Your task to perform on an android device: toggle pop-ups in chrome Image 0: 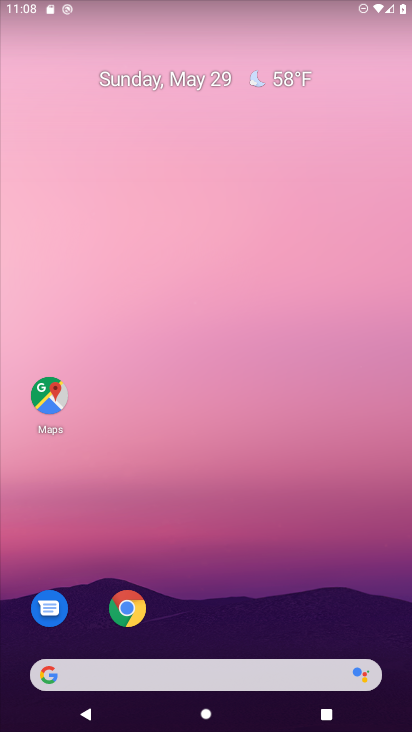
Step 0: click (126, 614)
Your task to perform on an android device: toggle pop-ups in chrome Image 1: 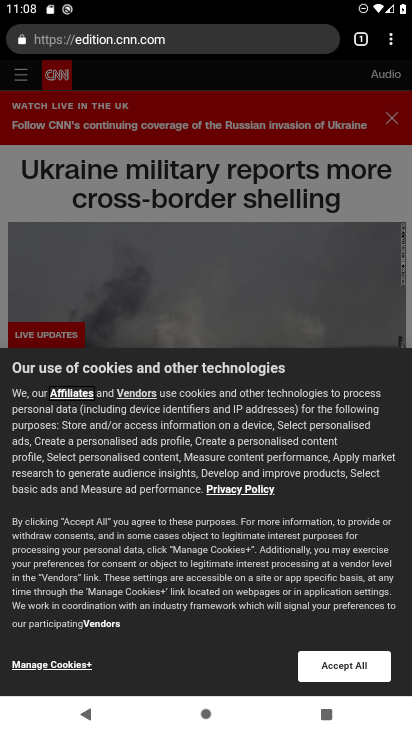
Step 1: click (396, 40)
Your task to perform on an android device: toggle pop-ups in chrome Image 2: 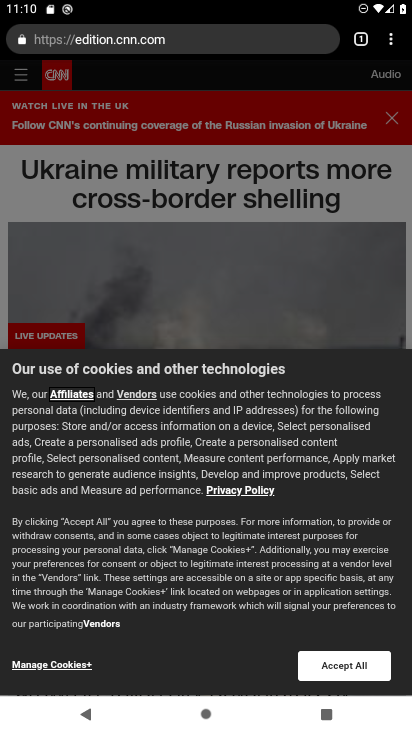
Step 2: click (395, 39)
Your task to perform on an android device: toggle pop-ups in chrome Image 3: 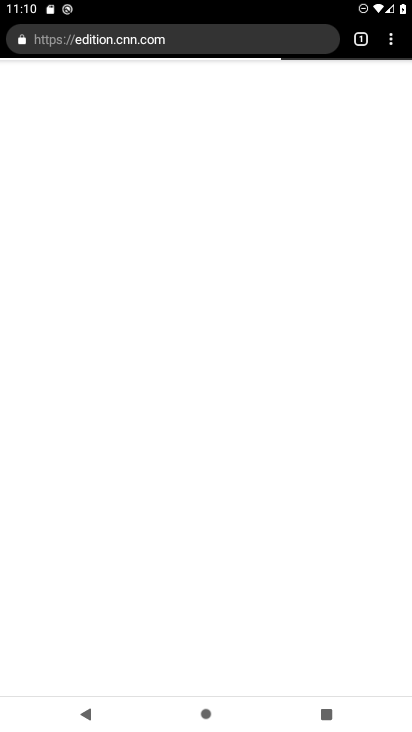
Step 3: click (385, 42)
Your task to perform on an android device: toggle pop-ups in chrome Image 4: 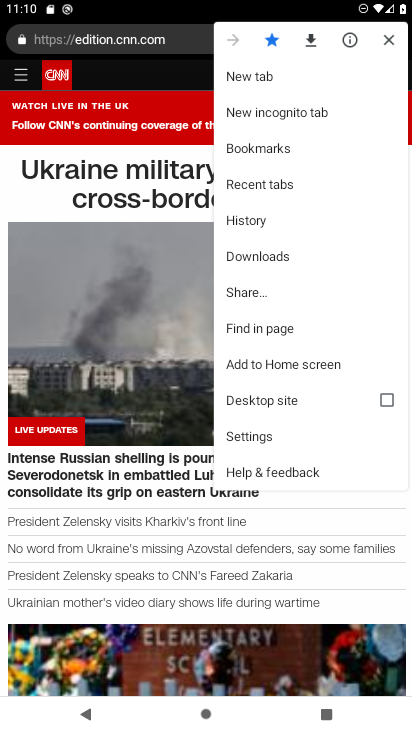
Step 4: click (257, 433)
Your task to perform on an android device: toggle pop-ups in chrome Image 5: 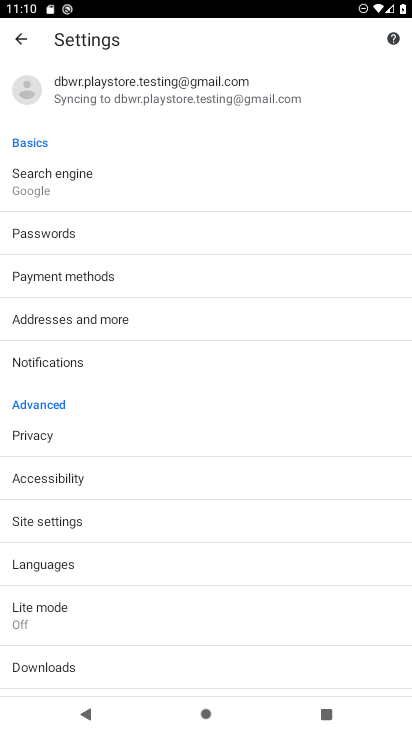
Step 5: click (20, 521)
Your task to perform on an android device: toggle pop-ups in chrome Image 6: 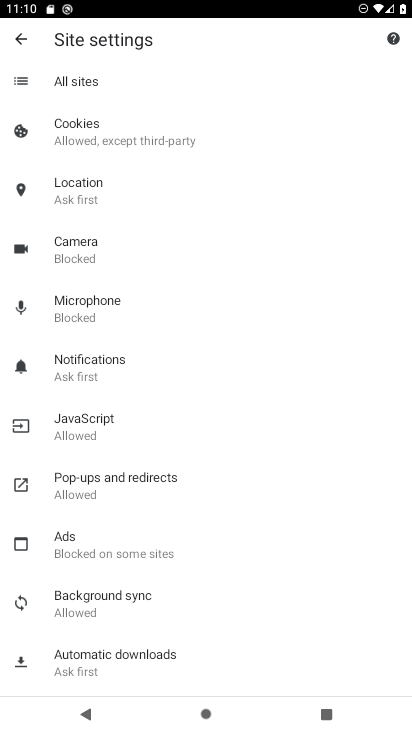
Step 6: click (96, 492)
Your task to perform on an android device: toggle pop-ups in chrome Image 7: 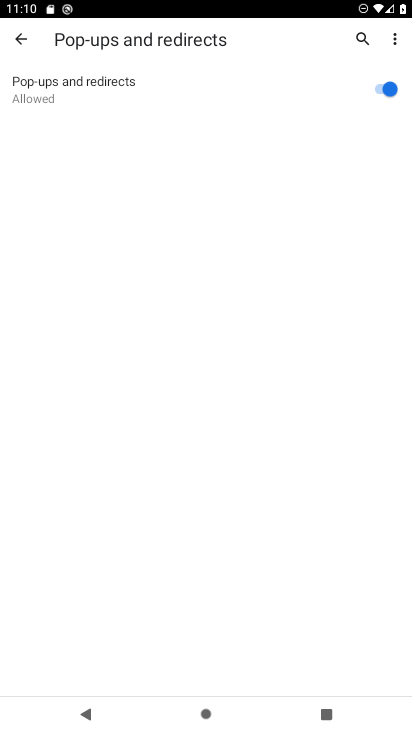
Step 7: click (383, 91)
Your task to perform on an android device: toggle pop-ups in chrome Image 8: 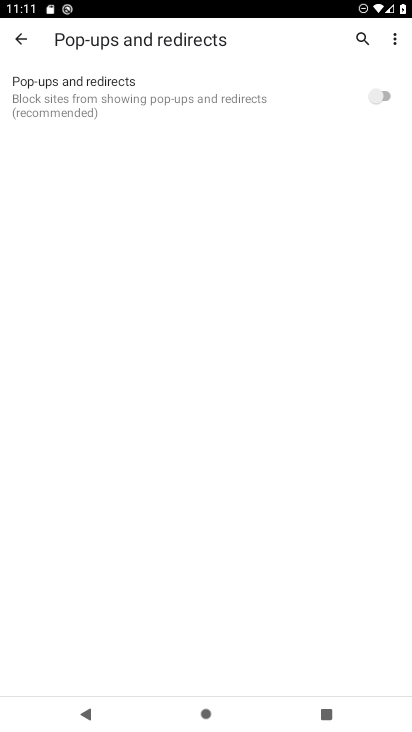
Step 8: task complete